Your task to perform on an android device: toggle improve location accuracy Image 0: 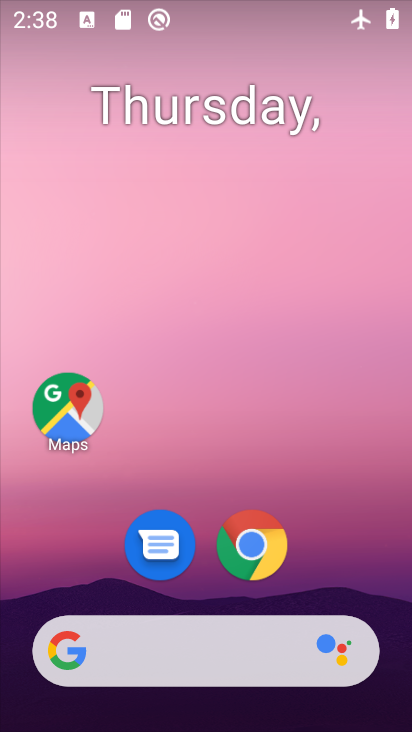
Step 0: click (84, 403)
Your task to perform on an android device: toggle improve location accuracy Image 1: 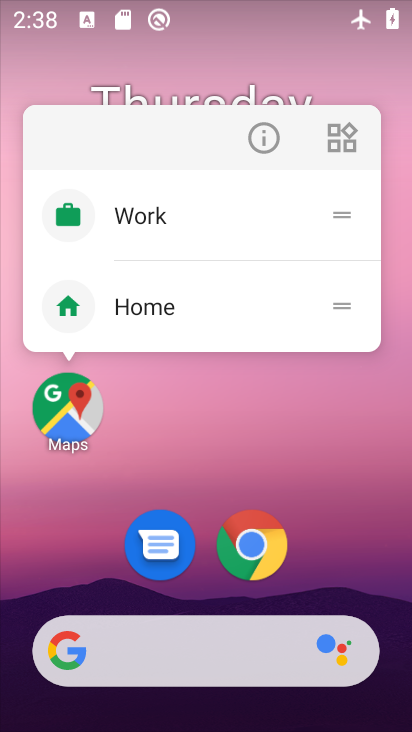
Step 1: click (55, 419)
Your task to perform on an android device: toggle improve location accuracy Image 2: 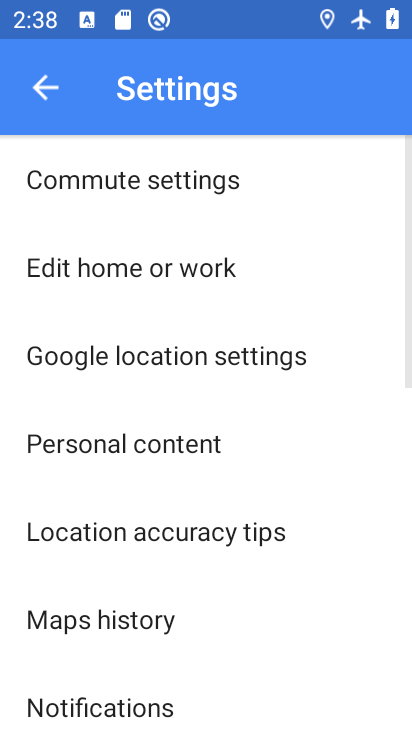
Step 2: click (259, 346)
Your task to perform on an android device: toggle improve location accuracy Image 3: 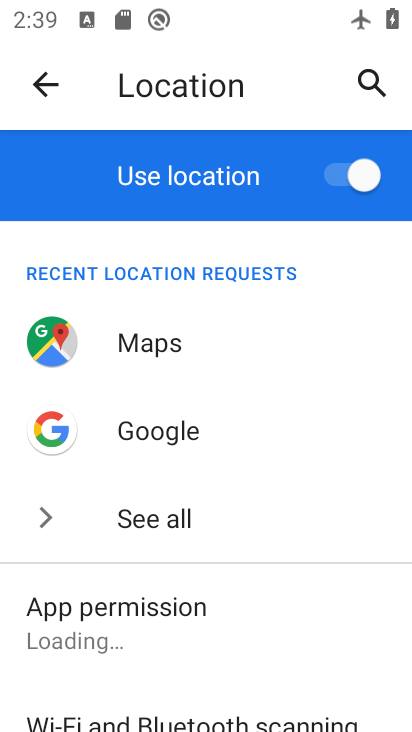
Step 3: drag from (187, 609) to (187, 173)
Your task to perform on an android device: toggle improve location accuracy Image 4: 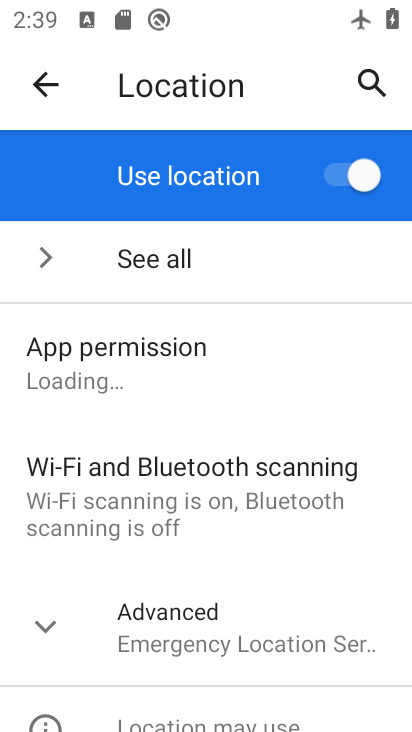
Step 4: click (221, 642)
Your task to perform on an android device: toggle improve location accuracy Image 5: 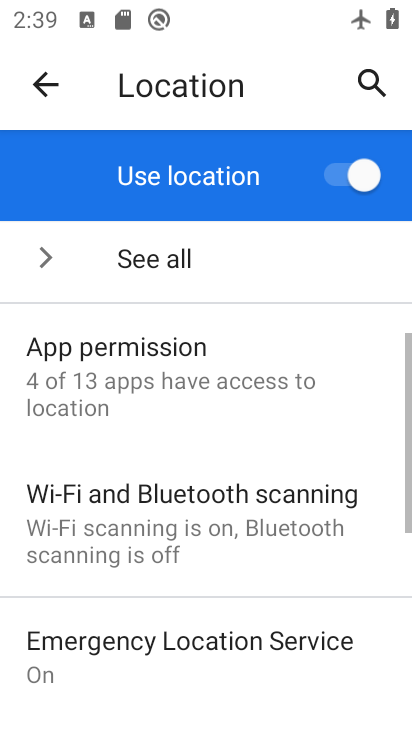
Step 5: drag from (288, 606) to (253, 221)
Your task to perform on an android device: toggle improve location accuracy Image 6: 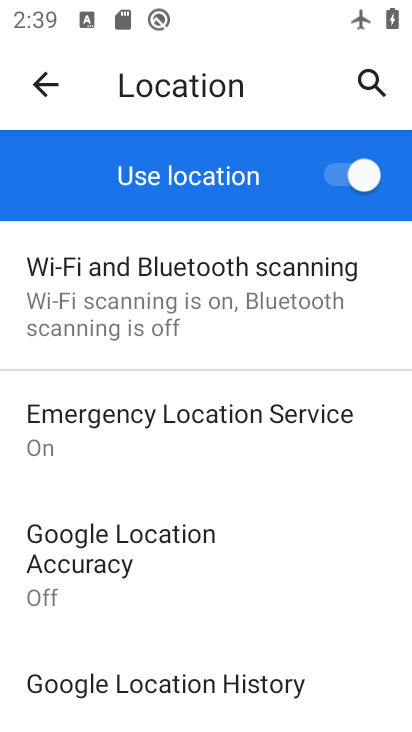
Step 6: drag from (243, 627) to (241, 169)
Your task to perform on an android device: toggle improve location accuracy Image 7: 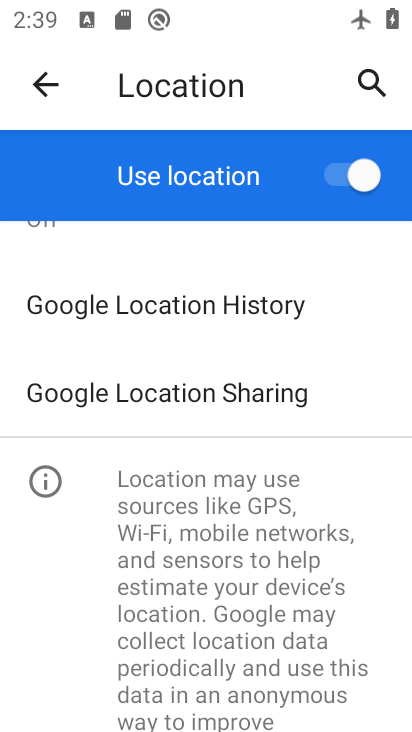
Step 7: drag from (294, 299) to (269, 523)
Your task to perform on an android device: toggle improve location accuracy Image 8: 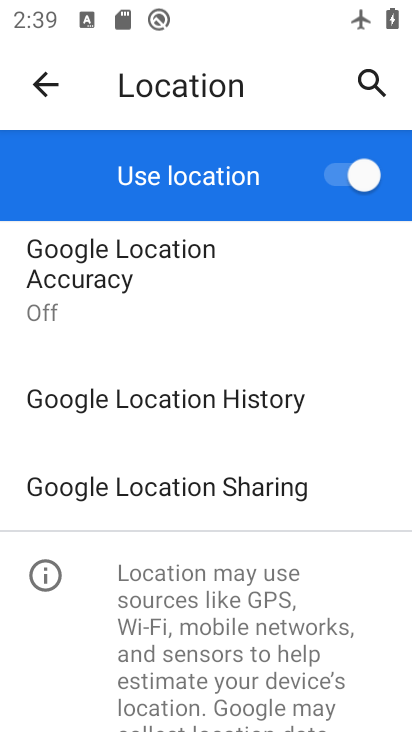
Step 8: click (175, 283)
Your task to perform on an android device: toggle improve location accuracy Image 9: 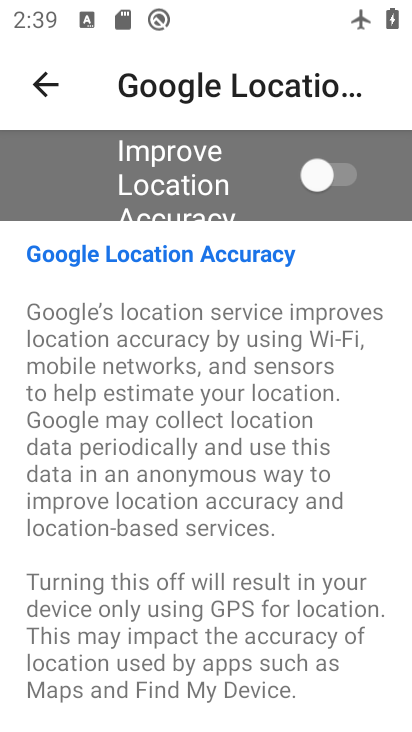
Step 9: click (313, 160)
Your task to perform on an android device: toggle improve location accuracy Image 10: 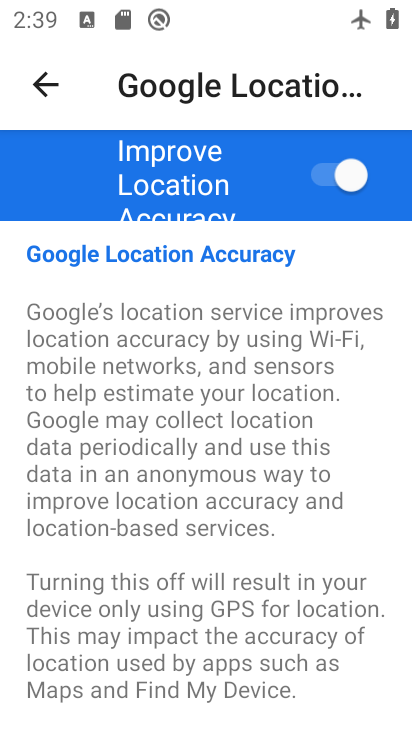
Step 10: task complete